Your task to perform on an android device: turn off notifications settings in the gmail app Image 0: 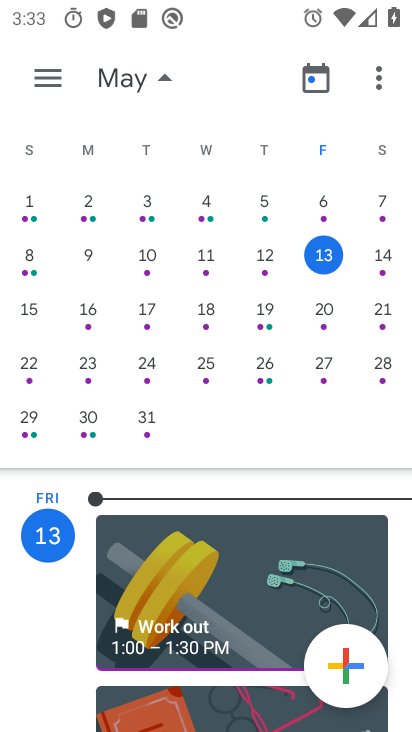
Step 0: press home button
Your task to perform on an android device: turn off notifications settings in the gmail app Image 1: 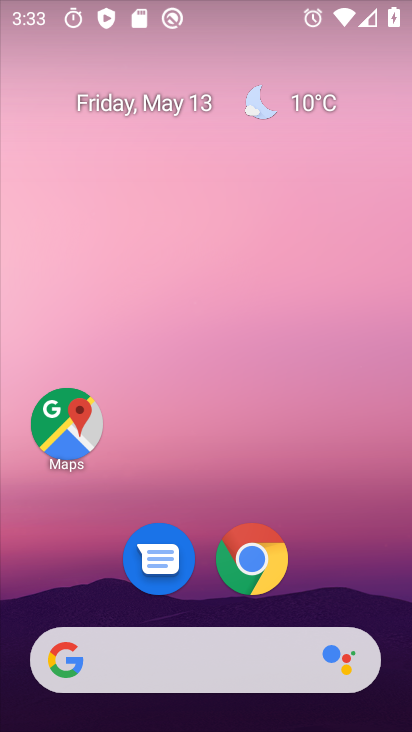
Step 1: drag from (201, 593) to (257, 119)
Your task to perform on an android device: turn off notifications settings in the gmail app Image 2: 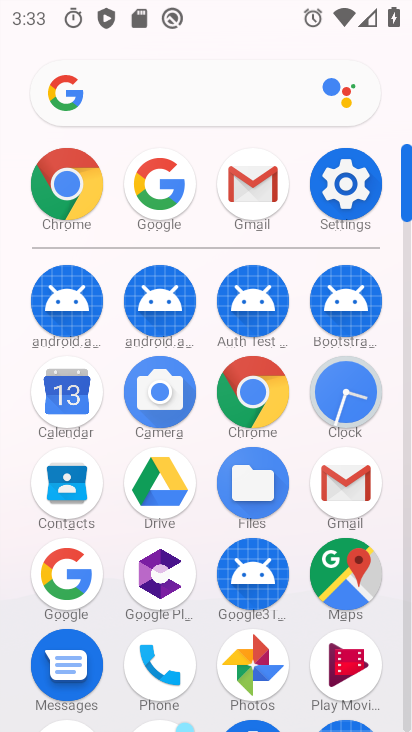
Step 2: click (345, 480)
Your task to perform on an android device: turn off notifications settings in the gmail app Image 3: 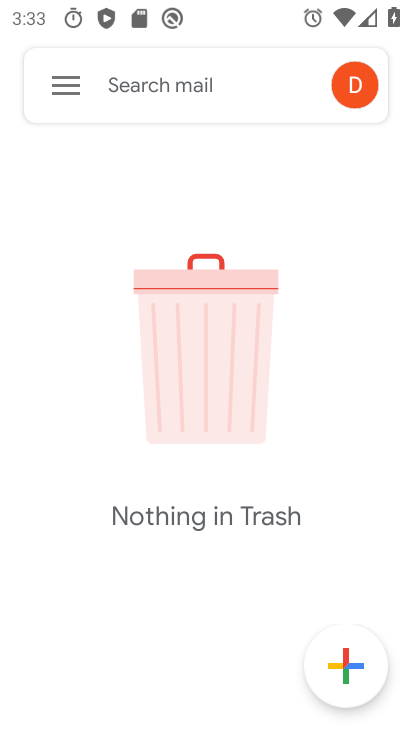
Step 3: click (55, 97)
Your task to perform on an android device: turn off notifications settings in the gmail app Image 4: 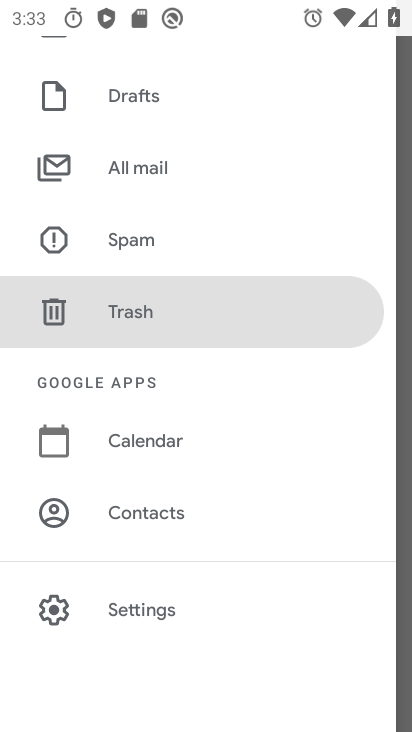
Step 4: click (167, 622)
Your task to perform on an android device: turn off notifications settings in the gmail app Image 5: 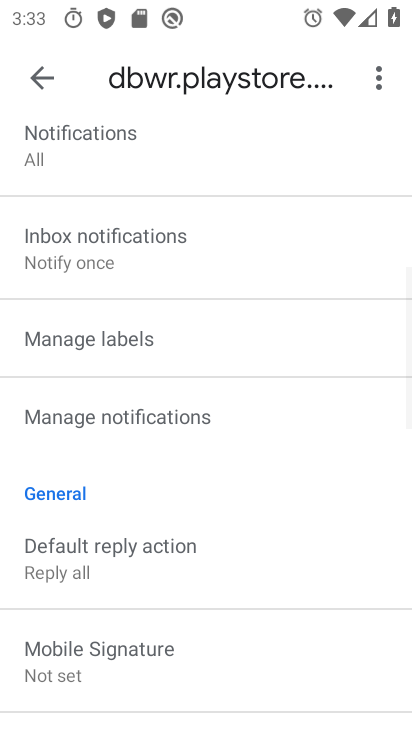
Step 5: drag from (206, 590) to (205, 501)
Your task to perform on an android device: turn off notifications settings in the gmail app Image 6: 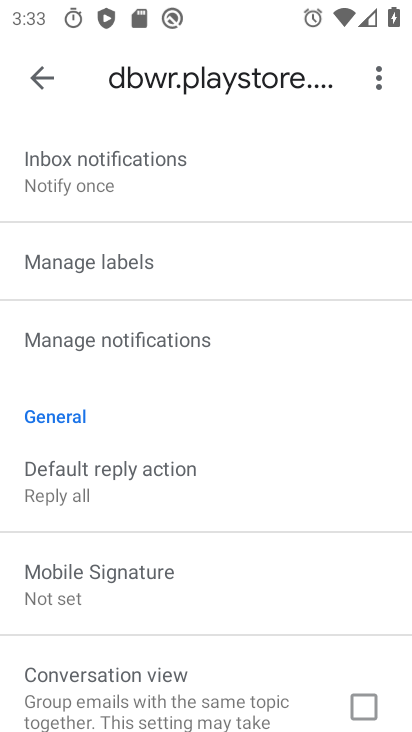
Step 6: click (169, 349)
Your task to perform on an android device: turn off notifications settings in the gmail app Image 7: 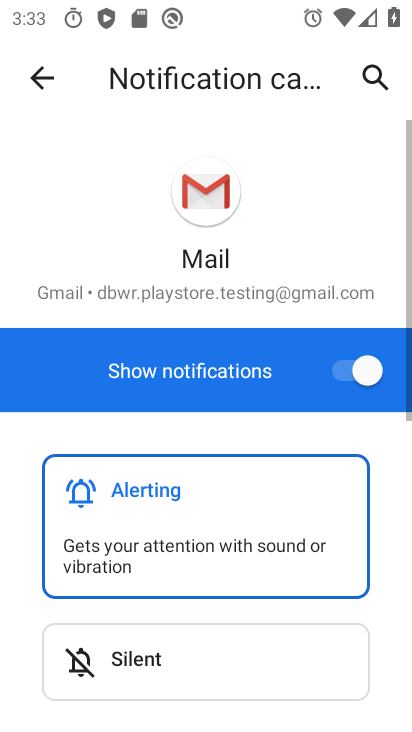
Step 7: drag from (259, 632) to (279, 499)
Your task to perform on an android device: turn off notifications settings in the gmail app Image 8: 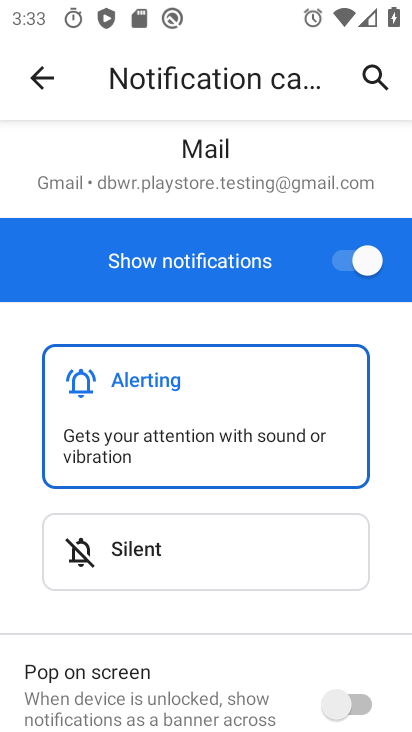
Step 8: click (343, 273)
Your task to perform on an android device: turn off notifications settings in the gmail app Image 9: 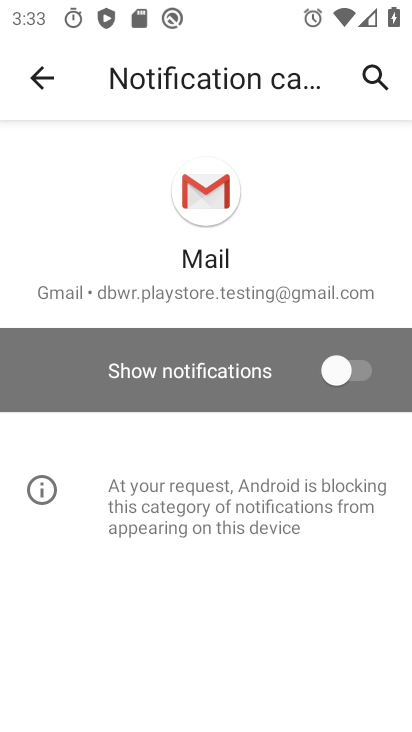
Step 9: task complete